Your task to perform on an android device: add a contact in the contacts app Image 0: 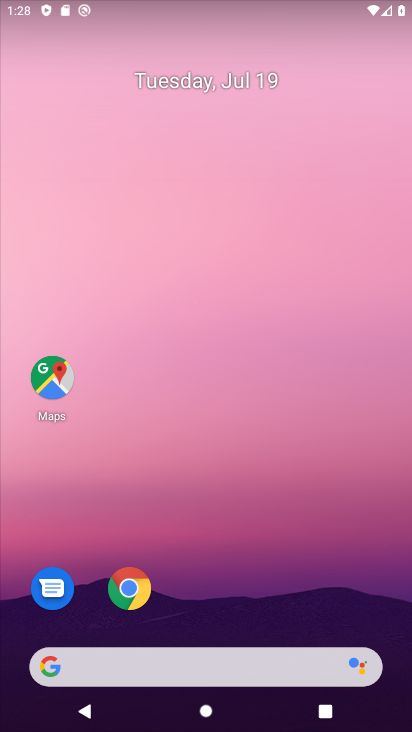
Step 0: drag from (300, 612) to (279, 65)
Your task to perform on an android device: add a contact in the contacts app Image 1: 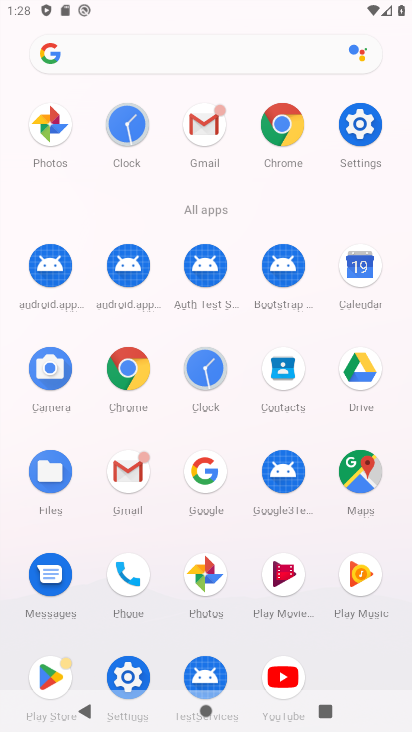
Step 1: click (281, 361)
Your task to perform on an android device: add a contact in the contacts app Image 2: 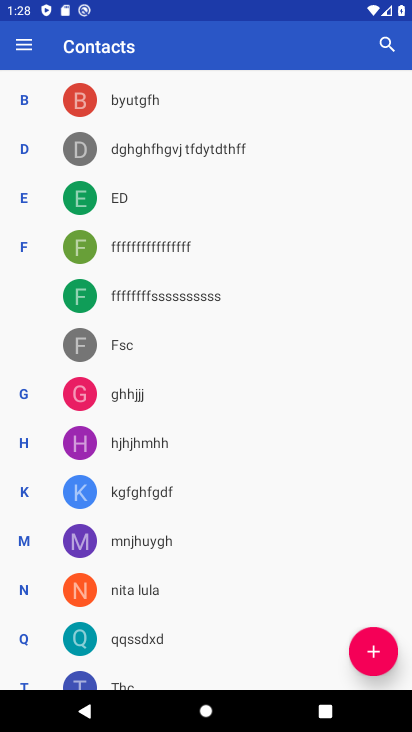
Step 2: click (370, 643)
Your task to perform on an android device: add a contact in the contacts app Image 3: 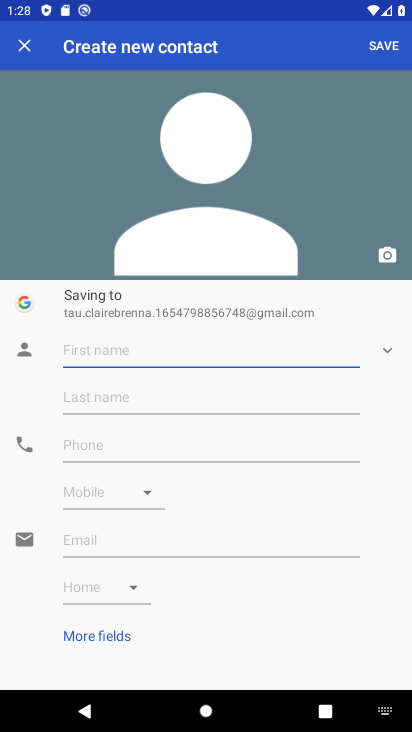
Step 3: click (220, 349)
Your task to perform on an android device: add a contact in the contacts app Image 4: 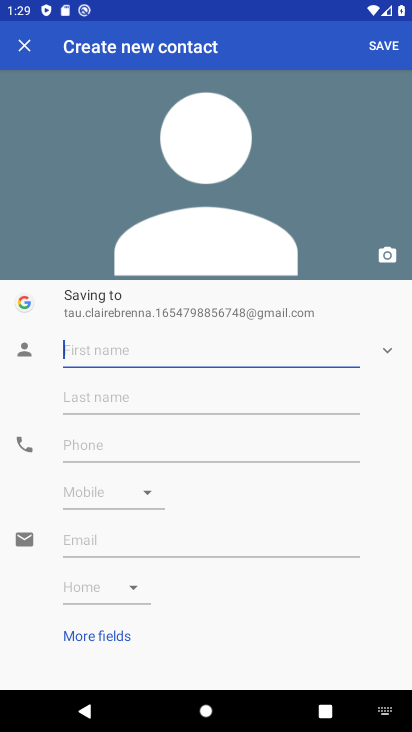
Step 4: click (220, 346)
Your task to perform on an android device: add a contact in the contacts app Image 5: 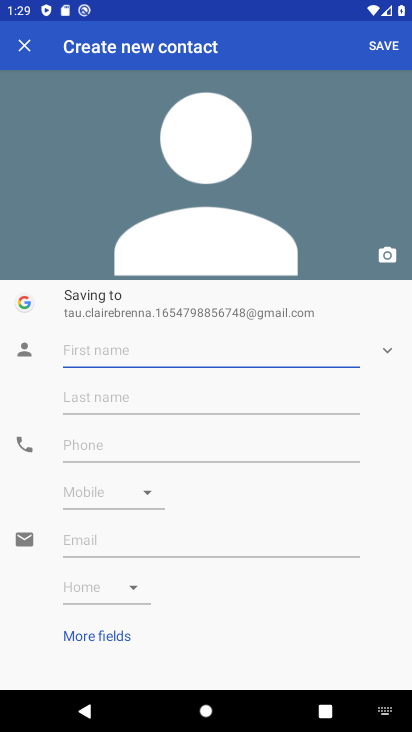
Step 5: type "vgvgj"
Your task to perform on an android device: add a contact in the contacts app Image 6: 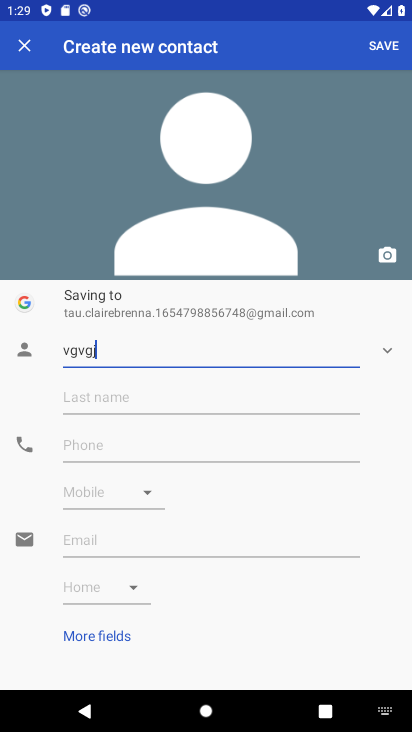
Step 6: click (317, 444)
Your task to perform on an android device: add a contact in the contacts app Image 7: 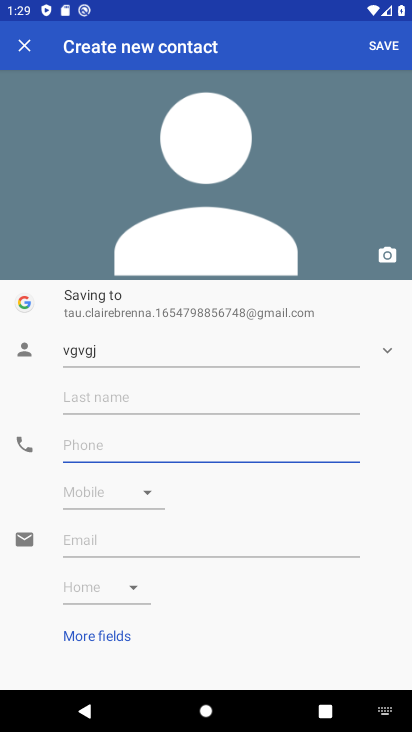
Step 7: type "87678678"
Your task to perform on an android device: add a contact in the contacts app Image 8: 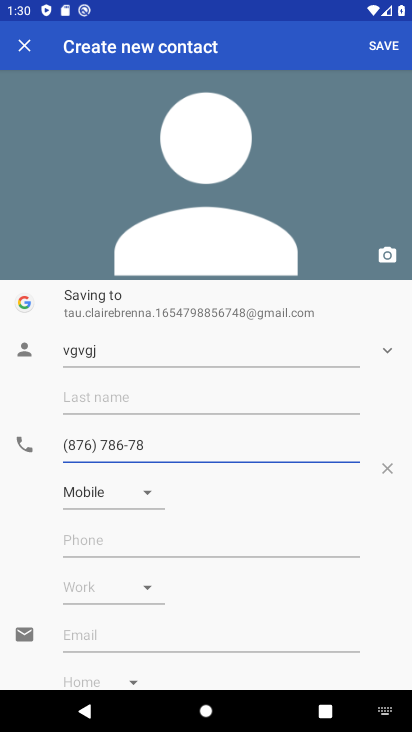
Step 8: click (385, 56)
Your task to perform on an android device: add a contact in the contacts app Image 9: 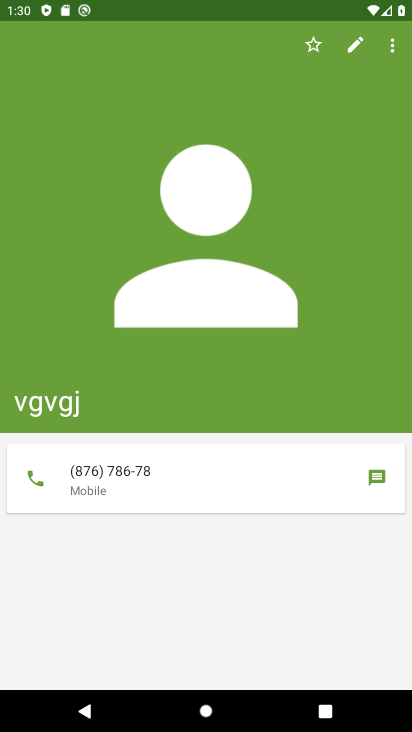
Step 9: task complete